Your task to perform on an android device: Open the web browser Image 0: 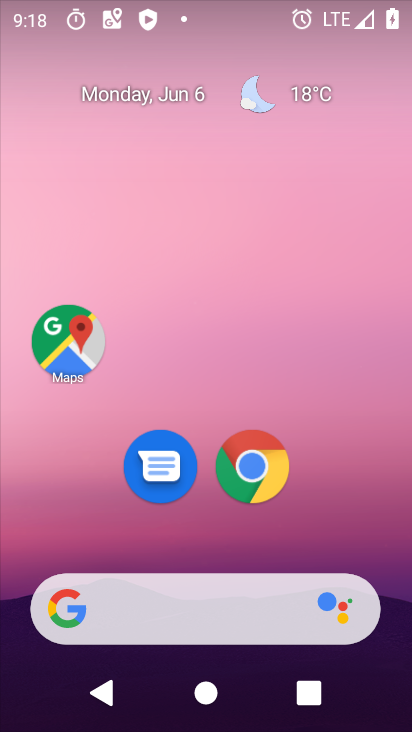
Step 0: drag from (245, 12) to (203, 8)
Your task to perform on an android device: Open the web browser Image 1: 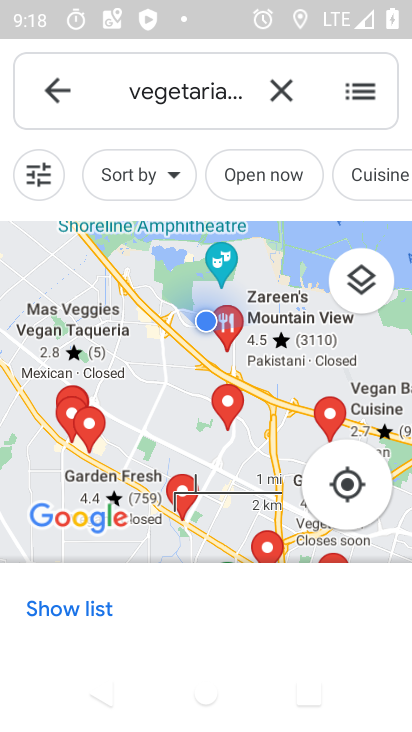
Step 1: press home button
Your task to perform on an android device: Open the web browser Image 2: 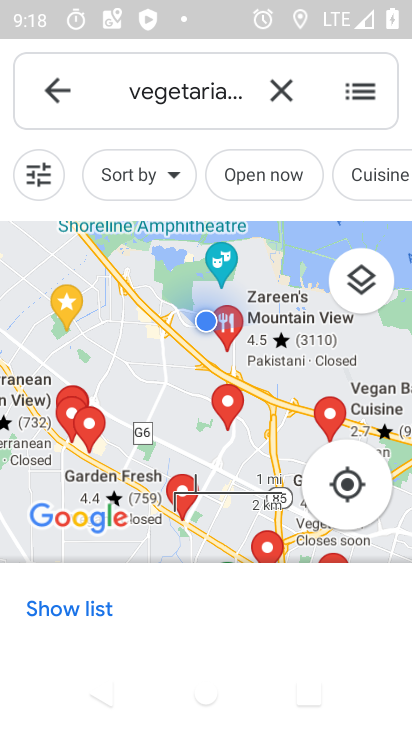
Step 2: drag from (214, 524) to (229, 14)
Your task to perform on an android device: Open the web browser Image 3: 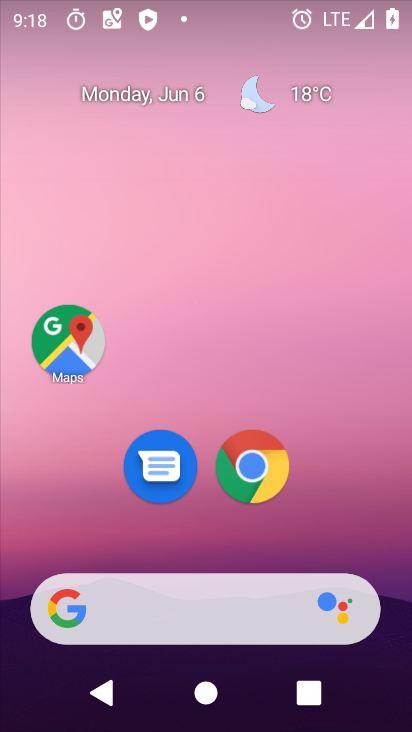
Step 3: drag from (216, 545) to (284, 90)
Your task to perform on an android device: Open the web browser Image 4: 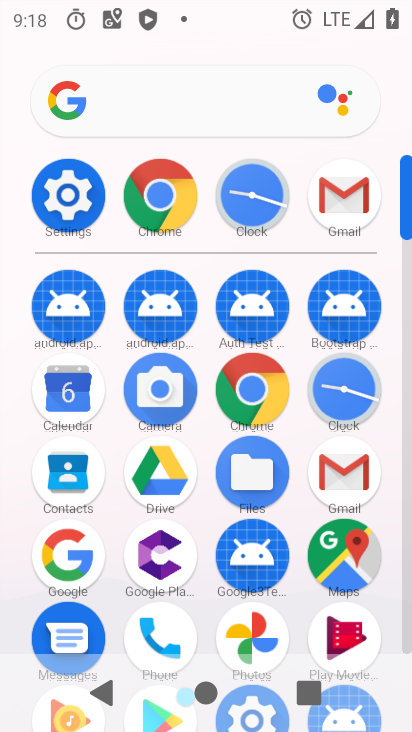
Step 4: click (164, 181)
Your task to perform on an android device: Open the web browser Image 5: 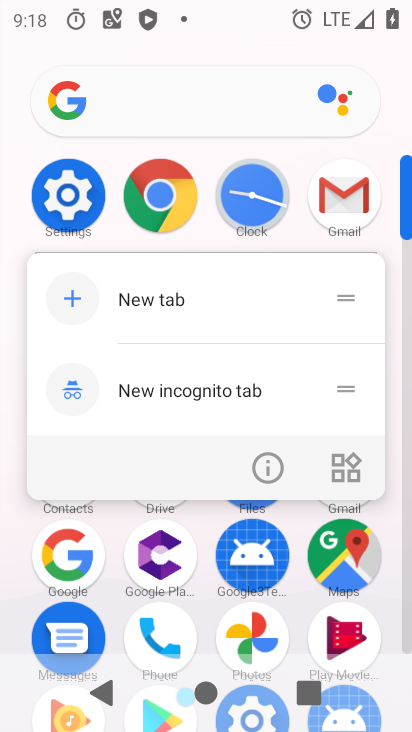
Step 5: click (263, 465)
Your task to perform on an android device: Open the web browser Image 6: 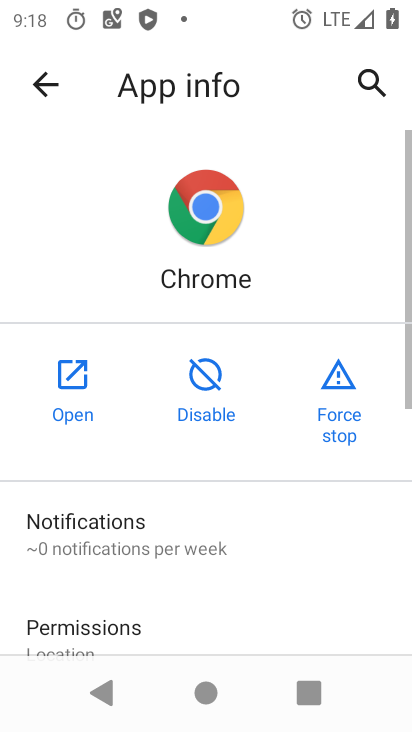
Step 6: click (62, 399)
Your task to perform on an android device: Open the web browser Image 7: 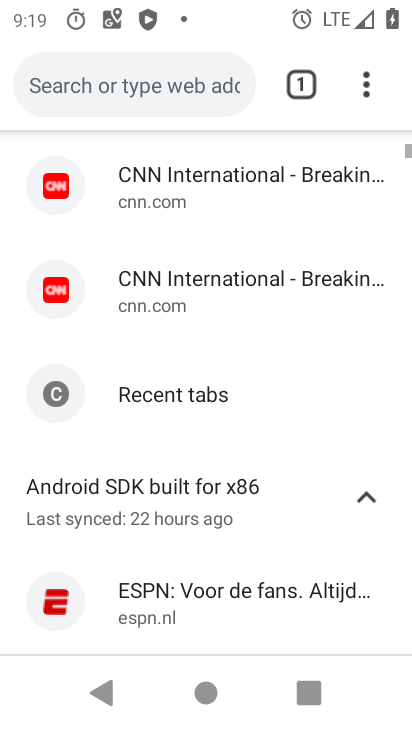
Step 7: task complete